Your task to perform on an android device: Open notification settings Image 0: 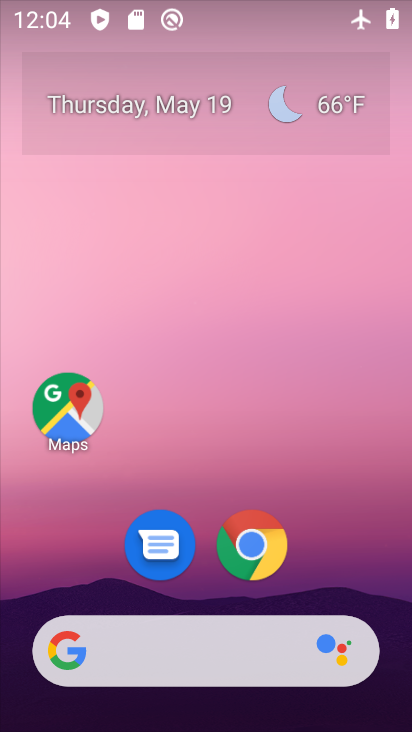
Step 0: drag from (223, 569) to (321, 0)
Your task to perform on an android device: Open notification settings Image 1: 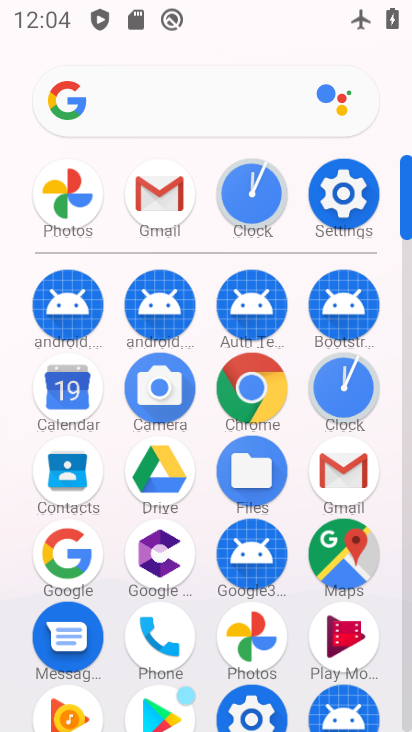
Step 1: click (342, 187)
Your task to perform on an android device: Open notification settings Image 2: 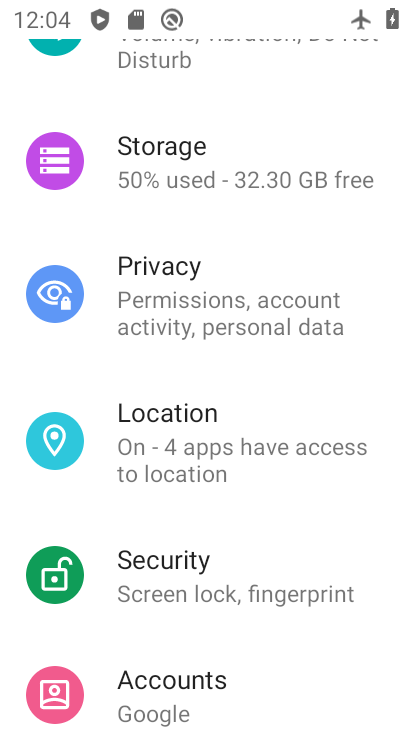
Step 2: drag from (268, 169) to (266, 702)
Your task to perform on an android device: Open notification settings Image 3: 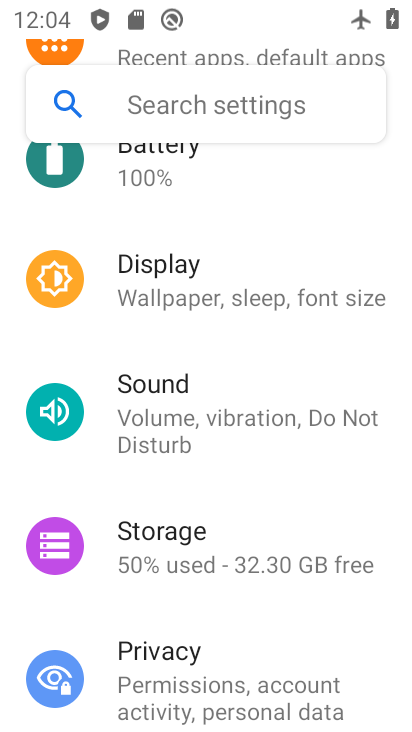
Step 3: drag from (328, 176) to (300, 730)
Your task to perform on an android device: Open notification settings Image 4: 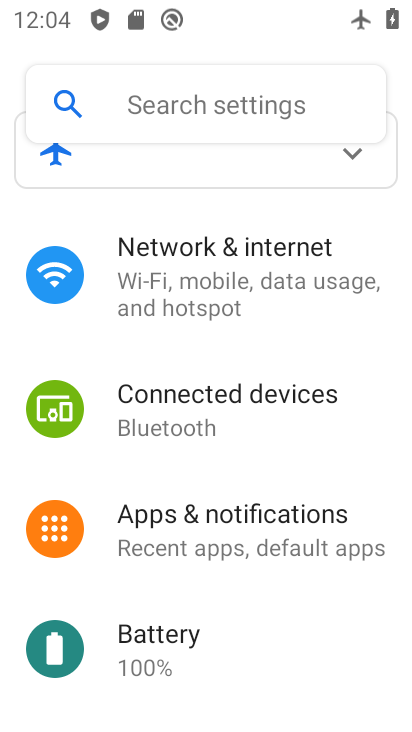
Step 4: click (282, 523)
Your task to perform on an android device: Open notification settings Image 5: 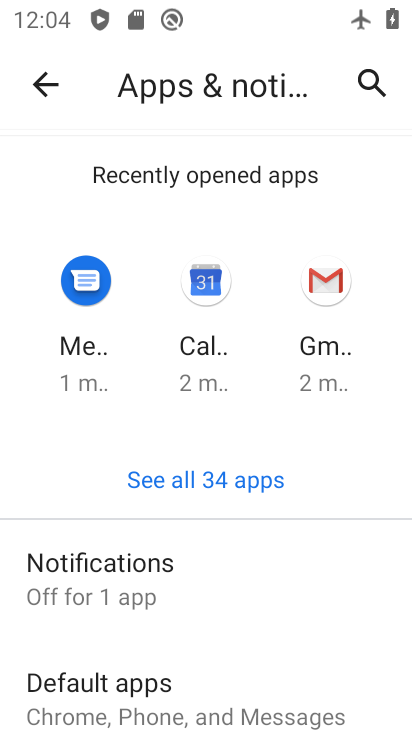
Step 5: task complete